Your task to perform on an android device: Search for Italian restaurants on Maps Image 0: 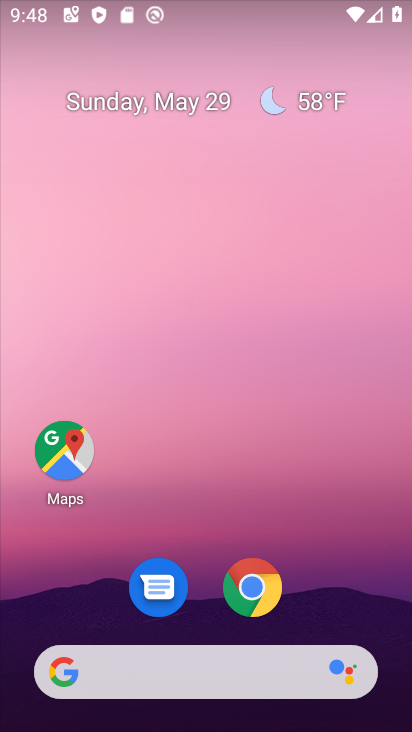
Step 0: click (50, 461)
Your task to perform on an android device: Search for Italian restaurants on Maps Image 1: 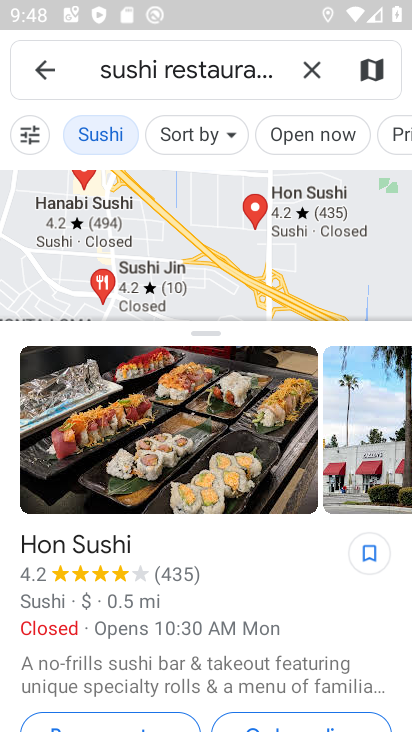
Step 1: click (317, 64)
Your task to perform on an android device: Search for Italian restaurants on Maps Image 2: 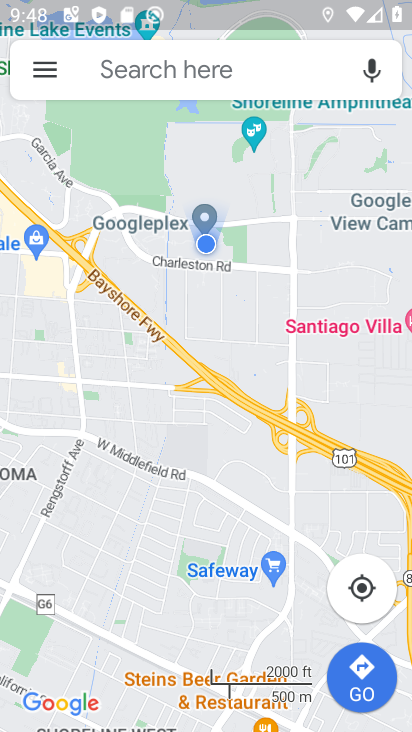
Step 2: click (212, 74)
Your task to perform on an android device: Search for Italian restaurants on Maps Image 3: 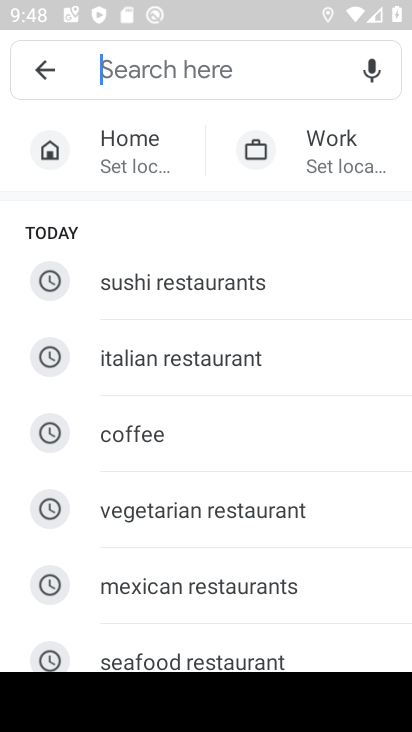
Step 3: click (224, 369)
Your task to perform on an android device: Search for Italian restaurants on Maps Image 4: 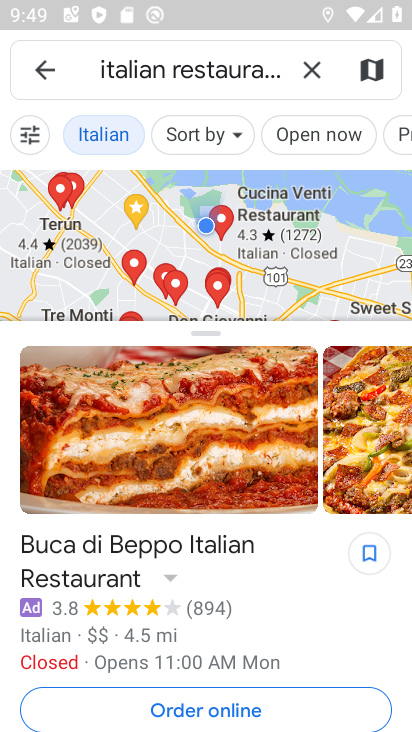
Step 4: task complete